Your task to perform on an android device: Go to Maps Image 0: 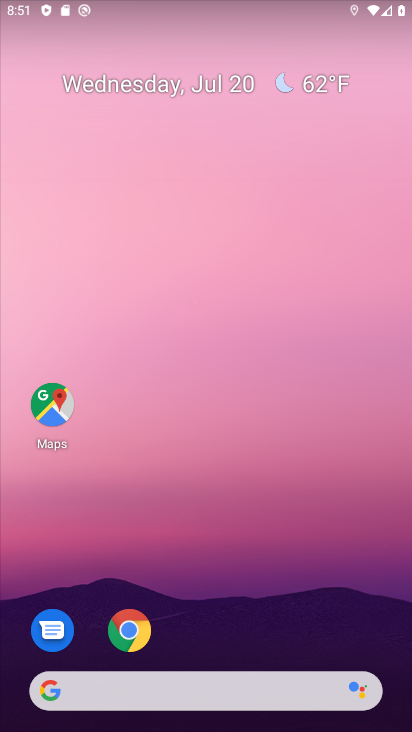
Step 0: click (184, 45)
Your task to perform on an android device: Go to Maps Image 1: 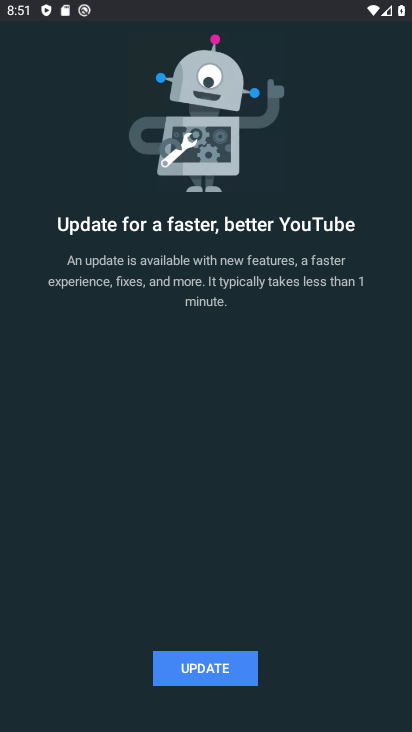
Step 1: press home button
Your task to perform on an android device: Go to Maps Image 2: 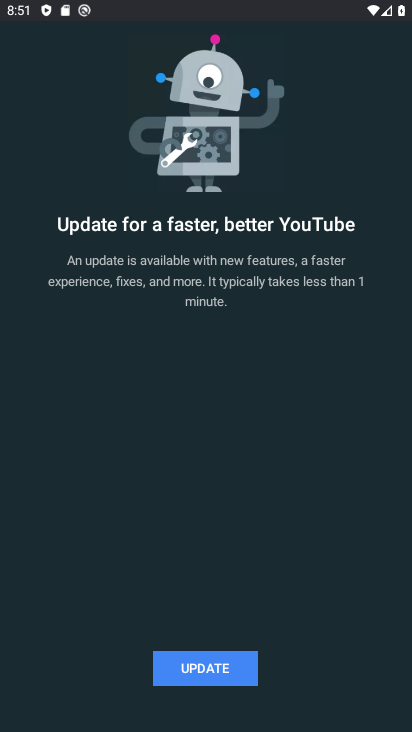
Step 2: drag from (184, 45) to (397, 447)
Your task to perform on an android device: Go to Maps Image 3: 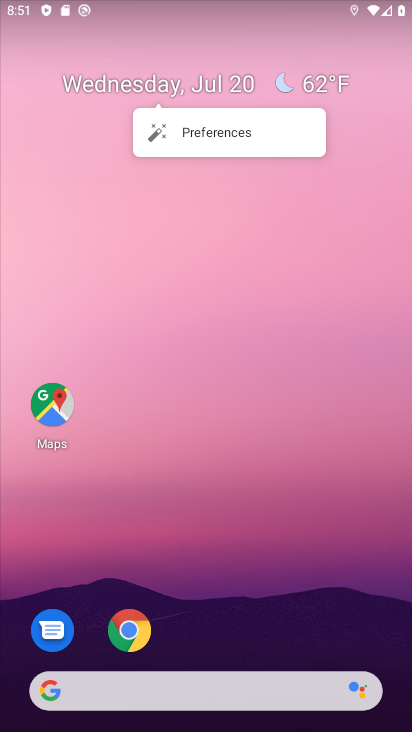
Step 3: click (46, 369)
Your task to perform on an android device: Go to Maps Image 4: 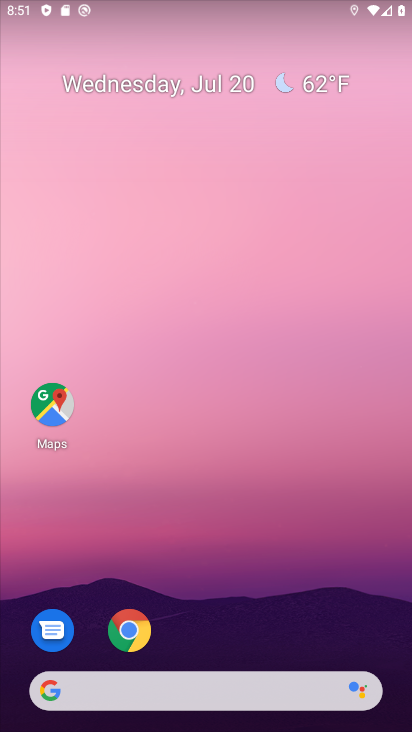
Step 4: click (56, 402)
Your task to perform on an android device: Go to Maps Image 5: 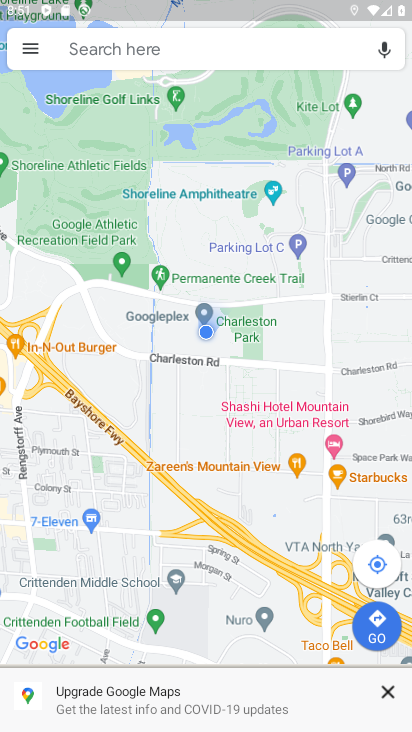
Step 5: task complete